Your task to perform on an android device: turn on notifications settings in the gmail app Image 0: 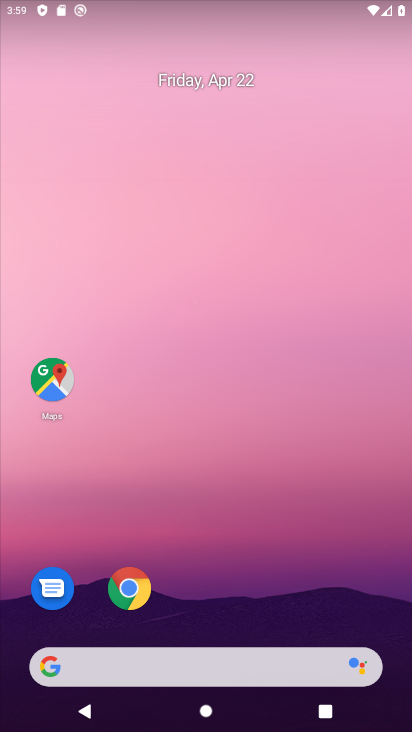
Step 0: drag from (229, 640) to (182, 99)
Your task to perform on an android device: turn on notifications settings in the gmail app Image 1: 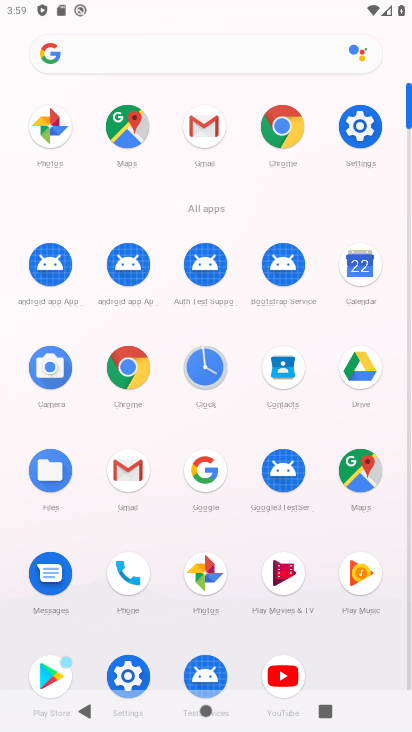
Step 1: click (136, 469)
Your task to perform on an android device: turn on notifications settings in the gmail app Image 2: 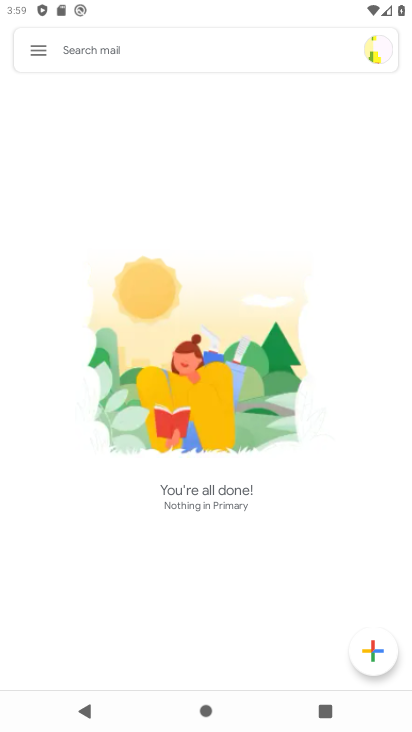
Step 2: click (31, 46)
Your task to perform on an android device: turn on notifications settings in the gmail app Image 3: 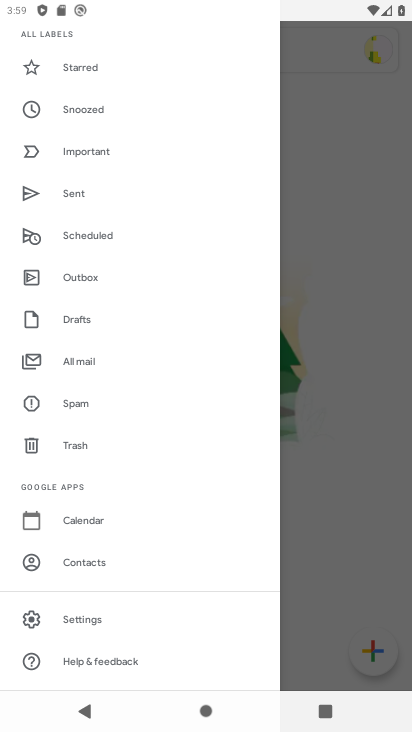
Step 3: click (90, 606)
Your task to perform on an android device: turn on notifications settings in the gmail app Image 4: 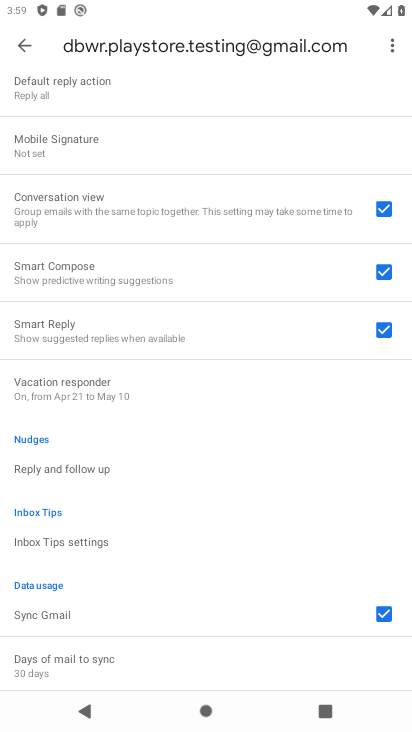
Step 4: drag from (146, 545) to (153, 355)
Your task to perform on an android device: turn on notifications settings in the gmail app Image 5: 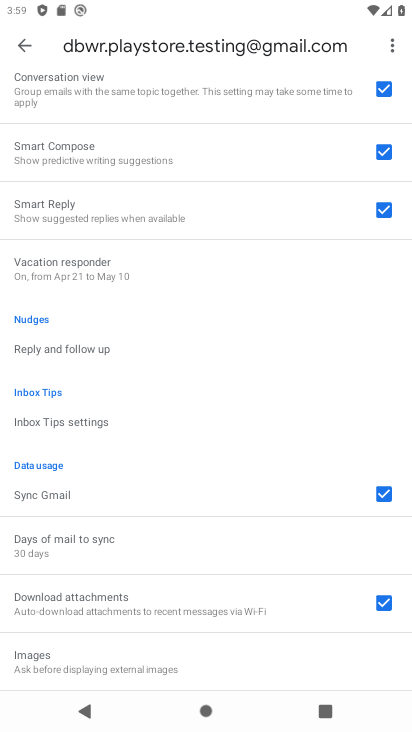
Step 5: click (32, 46)
Your task to perform on an android device: turn on notifications settings in the gmail app Image 6: 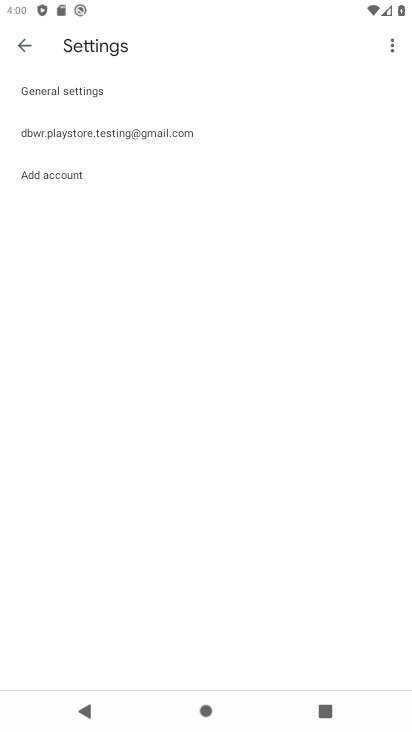
Step 6: click (60, 95)
Your task to perform on an android device: turn on notifications settings in the gmail app Image 7: 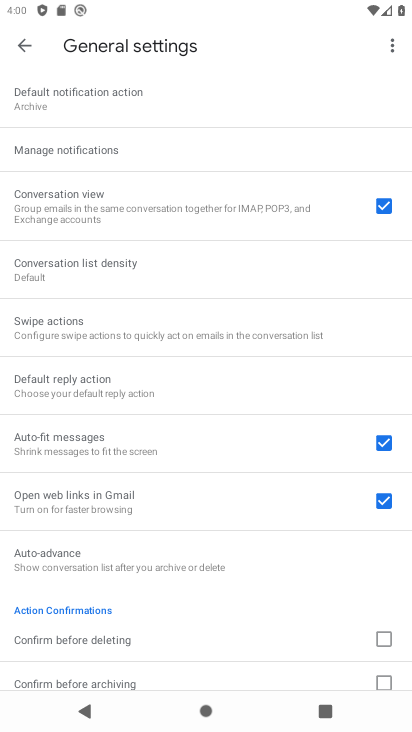
Step 7: click (51, 153)
Your task to perform on an android device: turn on notifications settings in the gmail app Image 8: 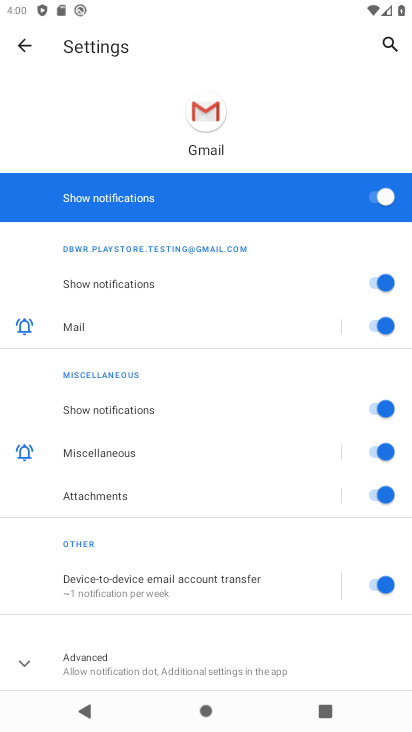
Step 8: task complete